Your task to perform on an android device: change the clock display to analog Image 0: 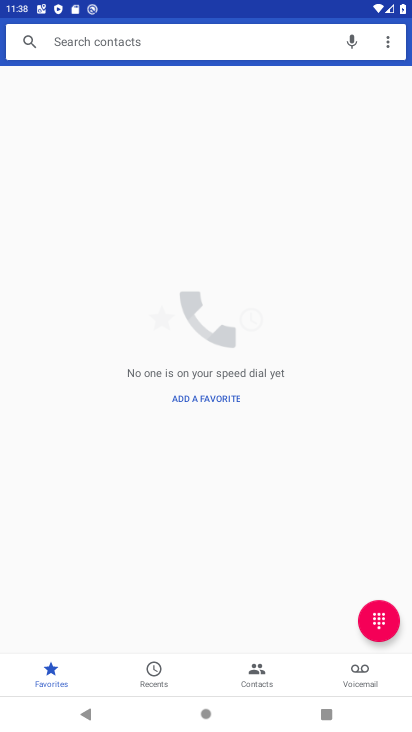
Step 0: press home button
Your task to perform on an android device: change the clock display to analog Image 1: 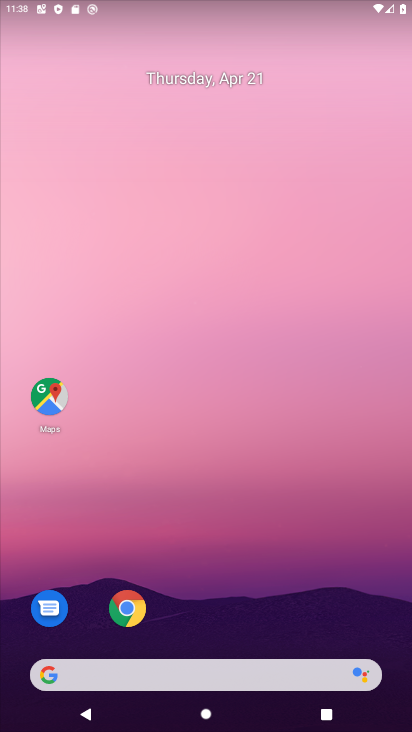
Step 1: drag from (248, 649) to (168, 171)
Your task to perform on an android device: change the clock display to analog Image 2: 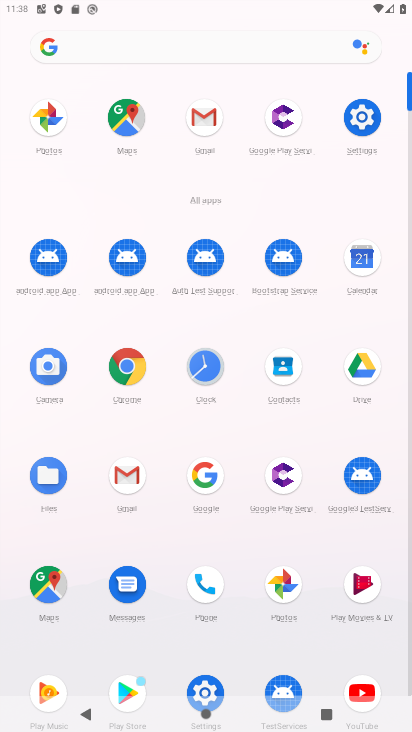
Step 2: click (193, 371)
Your task to perform on an android device: change the clock display to analog Image 3: 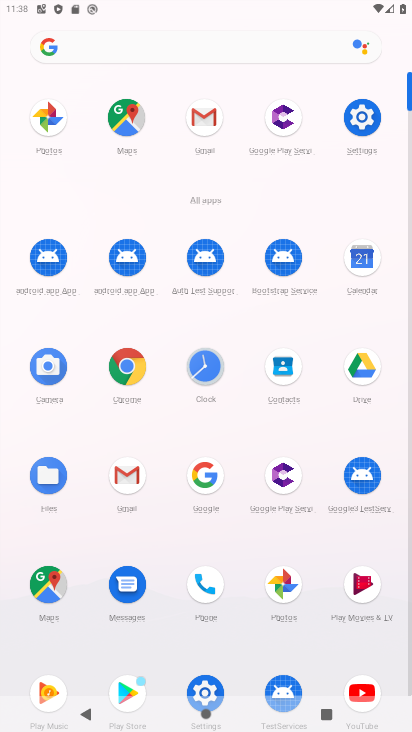
Step 3: click (193, 371)
Your task to perform on an android device: change the clock display to analog Image 4: 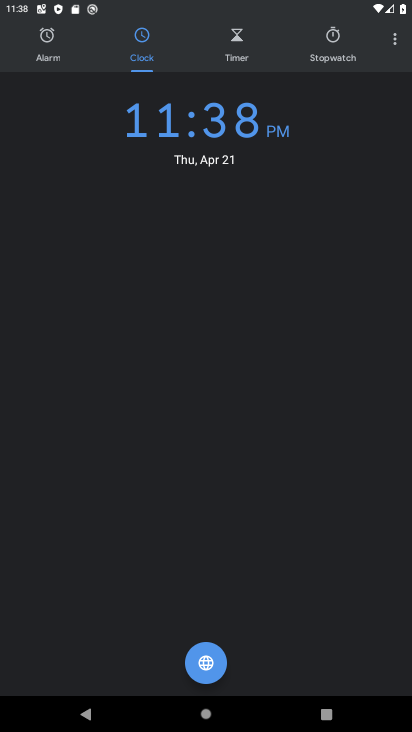
Step 4: click (396, 41)
Your task to perform on an android device: change the clock display to analog Image 5: 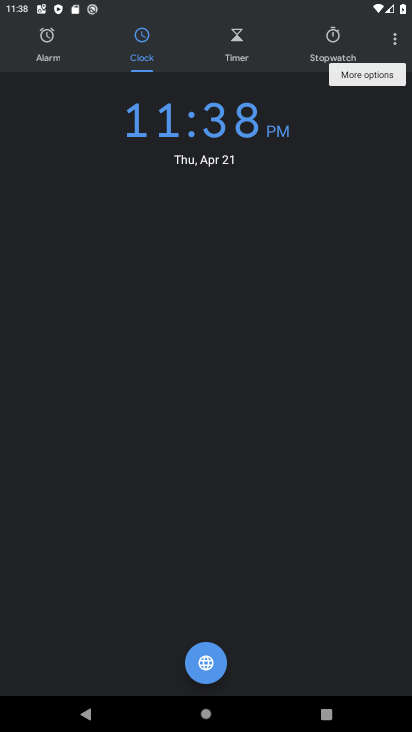
Step 5: click (398, 38)
Your task to perform on an android device: change the clock display to analog Image 6: 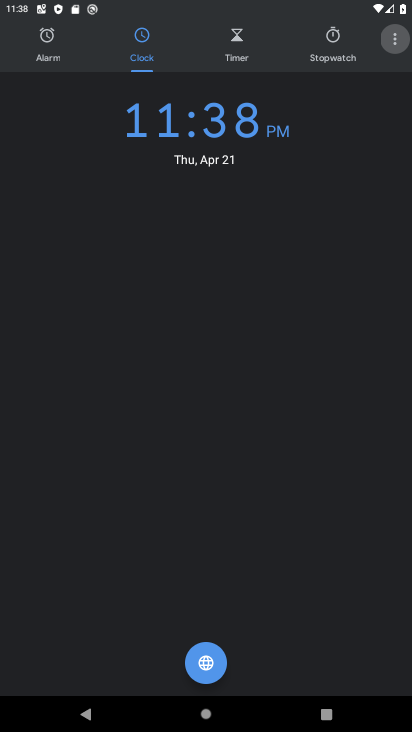
Step 6: click (398, 38)
Your task to perform on an android device: change the clock display to analog Image 7: 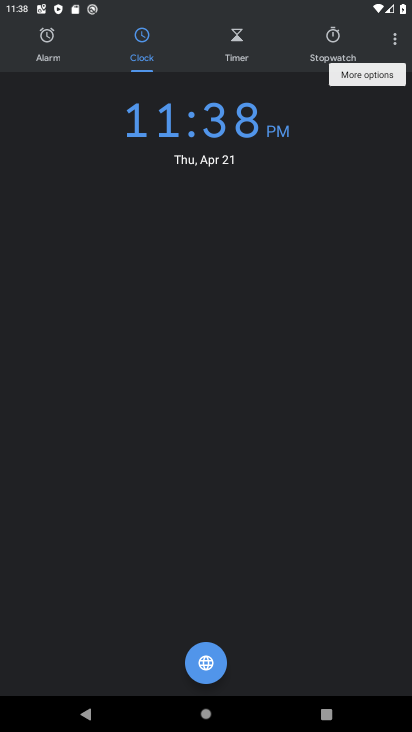
Step 7: click (396, 47)
Your task to perform on an android device: change the clock display to analog Image 8: 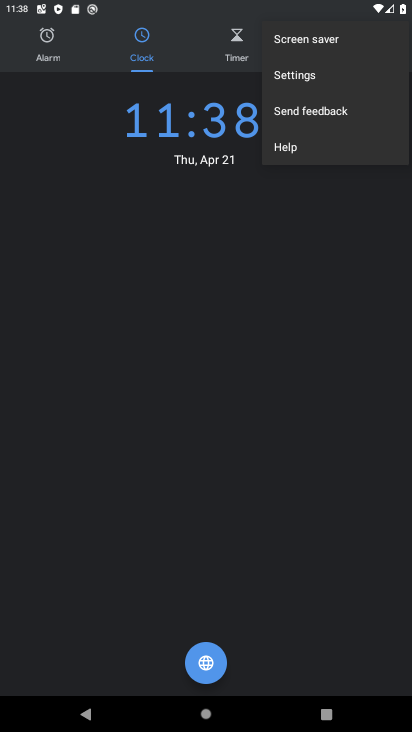
Step 8: click (387, 34)
Your task to perform on an android device: change the clock display to analog Image 9: 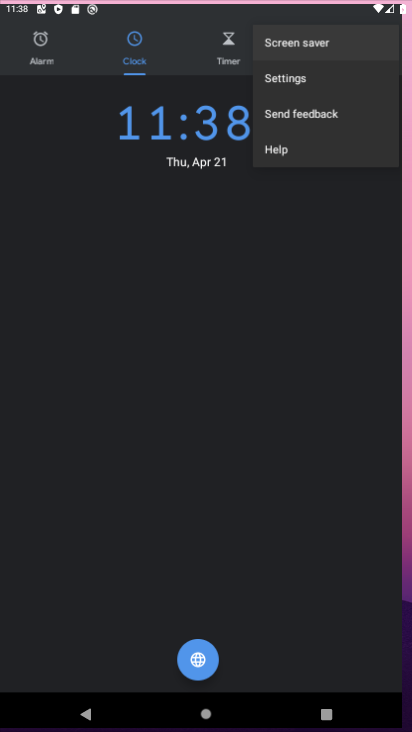
Step 9: click (304, 71)
Your task to perform on an android device: change the clock display to analog Image 10: 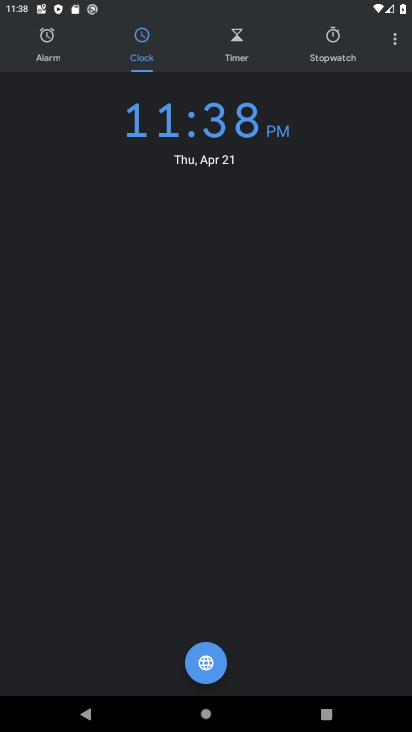
Step 10: click (393, 40)
Your task to perform on an android device: change the clock display to analog Image 11: 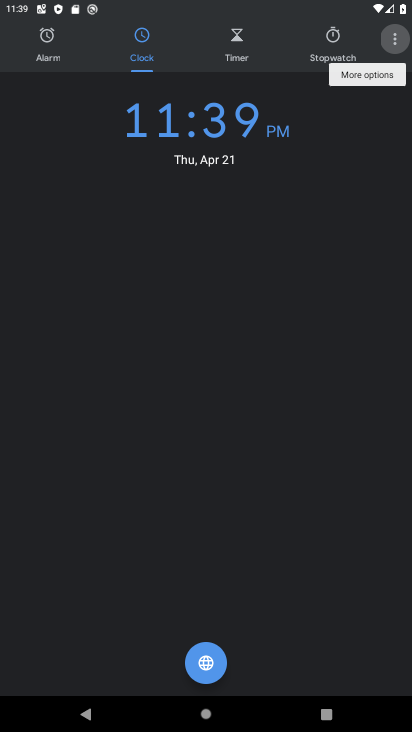
Step 11: click (392, 41)
Your task to perform on an android device: change the clock display to analog Image 12: 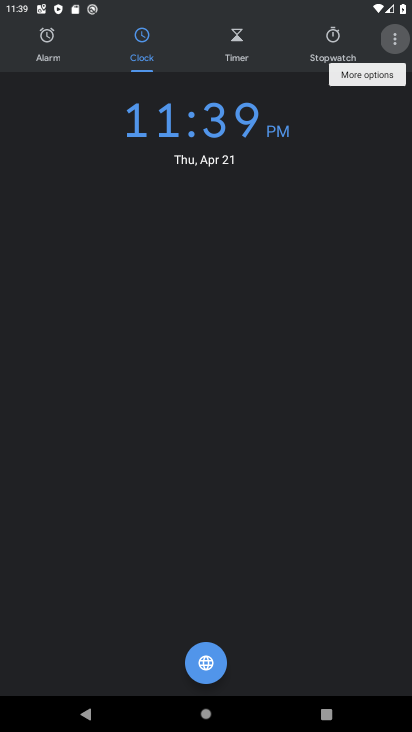
Step 12: click (392, 42)
Your task to perform on an android device: change the clock display to analog Image 13: 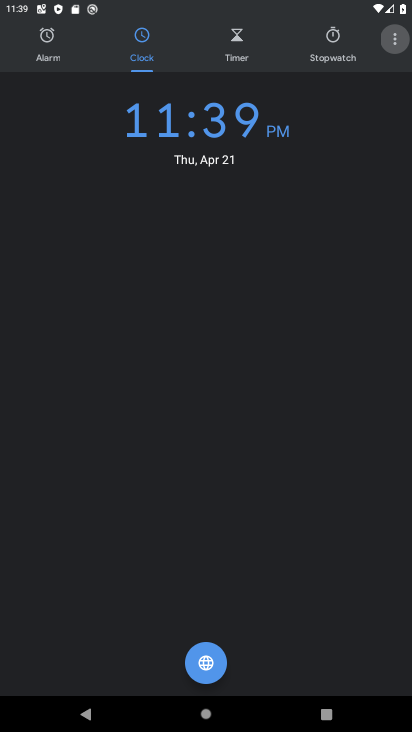
Step 13: click (392, 42)
Your task to perform on an android device: change the clock display to analog Image 14: 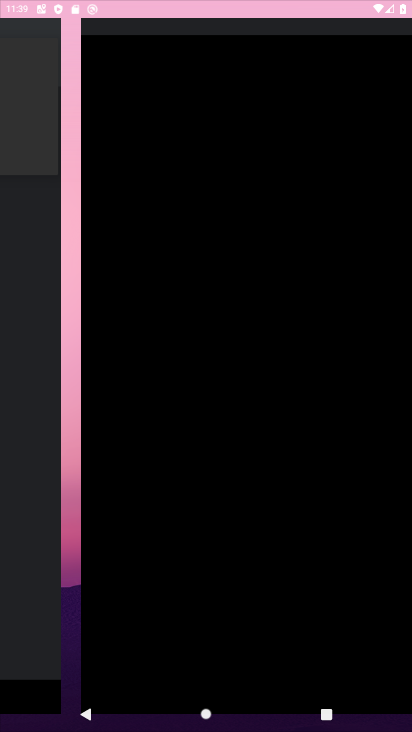
Step 14: click (290, 80)
Your task to perform on an android device: change the clock display to analog Image 15: 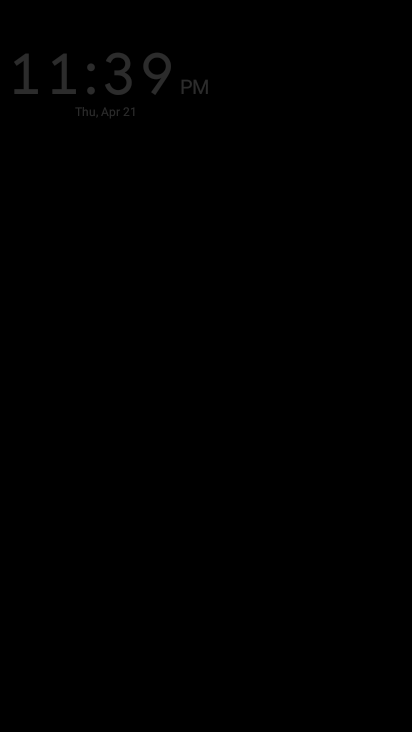
Step 15: click (290, 77)
Your task to perform on an android device: change the clock display to analog Image 16: 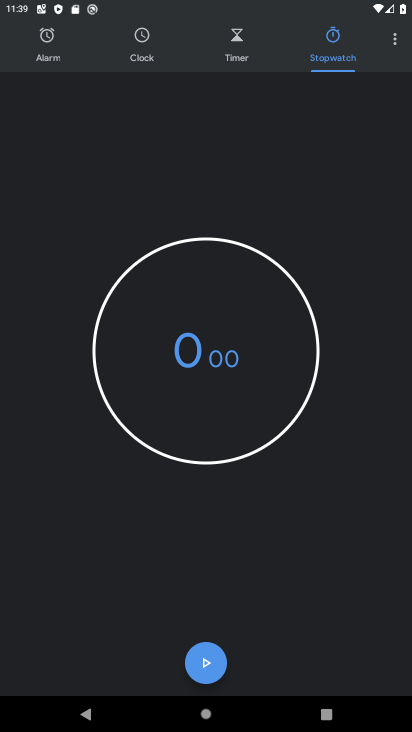
Step 16: click (392, 40)
Your task to perform on an android device: change the clock display to analog Image 17: 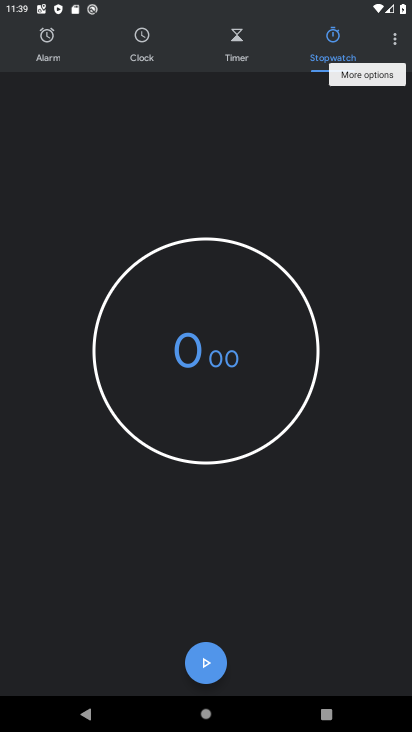
Step 17: click (391, 46)
Your task to perform on an android device: change the clock display to analog Image 18: 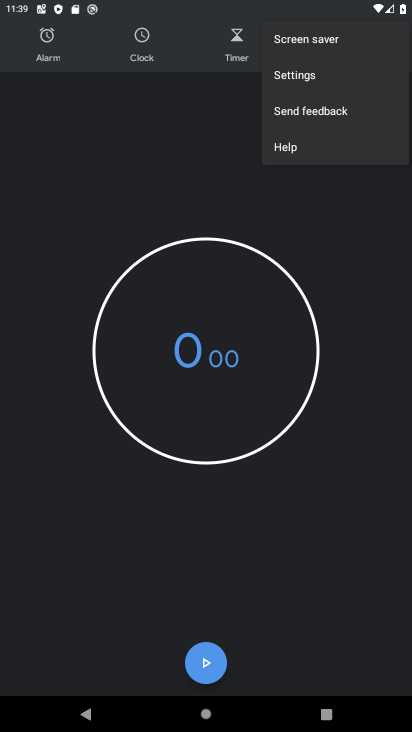
Step 18: click (391, 46)
Your task to perform on an android device: change the clock display to analog Image 19: 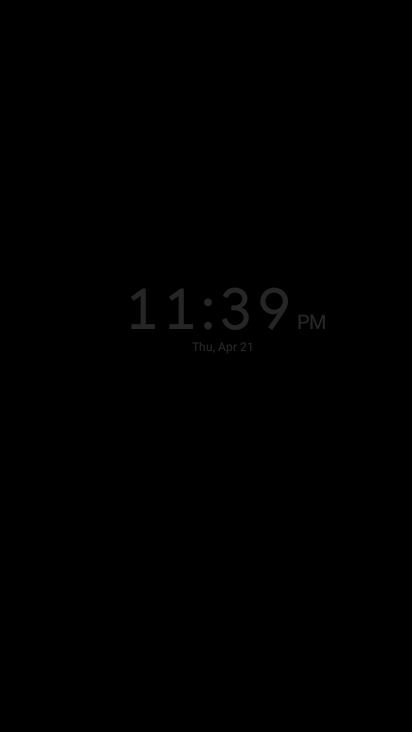
Step 19: click (310, 72)
Your task to perform on an android device: change the clock display to analog Image 20: 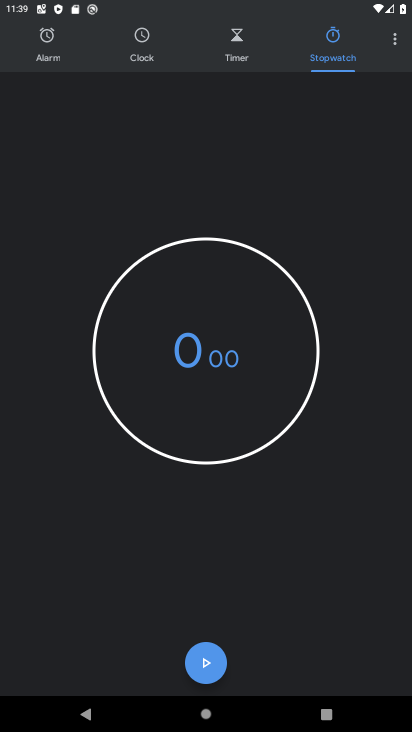
Step 20: click (391, 43)
Your task to perform on an android device: change the clock display to analog Image 21: 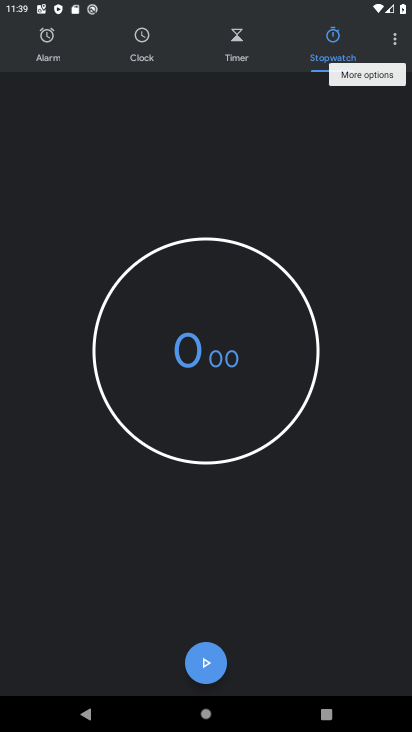
Step 21: click (395, 40)
Your task to perform on an android device: change the clock display to analog Image 22: 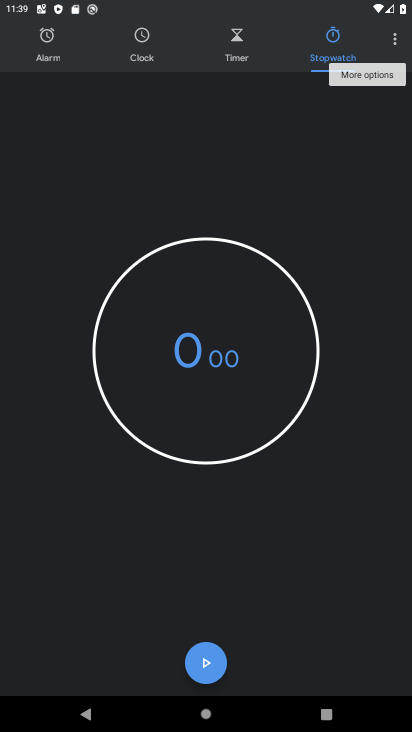
Step 22: click (391, 35)
Your task to perform on an android device: change the clock display to analog Image 23: 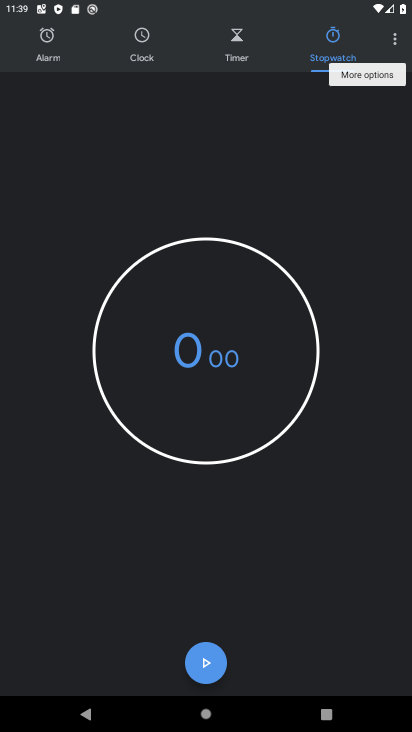
Step 23: click (389, 55)
Your task to perform on an android device: change the clock display to analog Image 24: 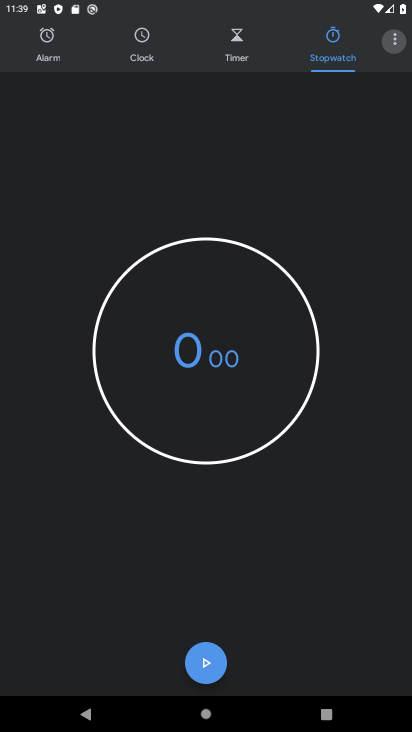
Step 24: click (397, 44)
Your task to perform on an android device: change the clock display to analog Image 25: 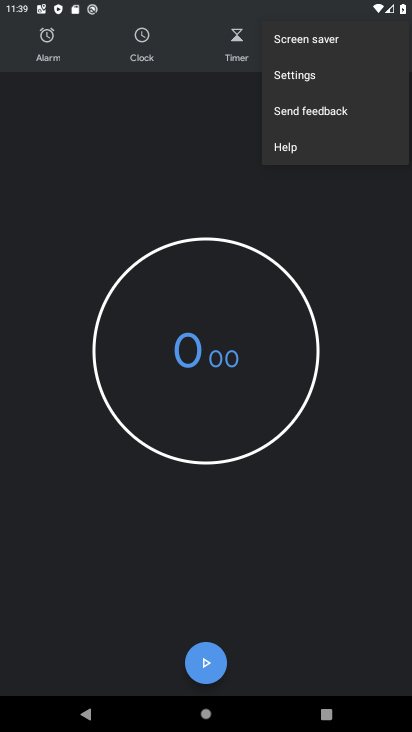
Step 25: click (319, 78)
Your task to perform on an android device: change the clock display to analog Image 26: 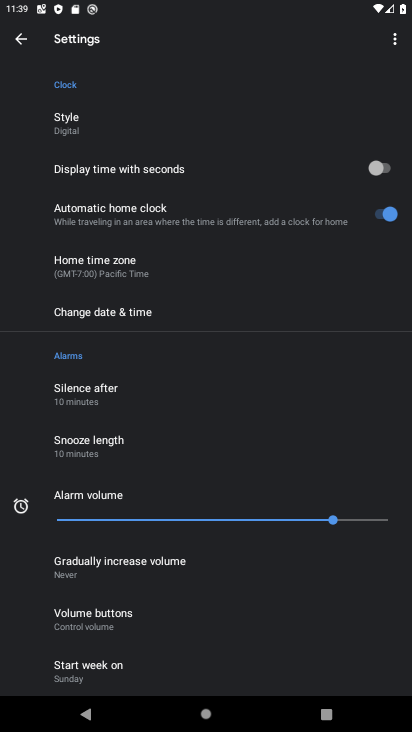
Step 26: click (142, 111)
Your task to perform on an android device: change the clock display to analog Image 27: 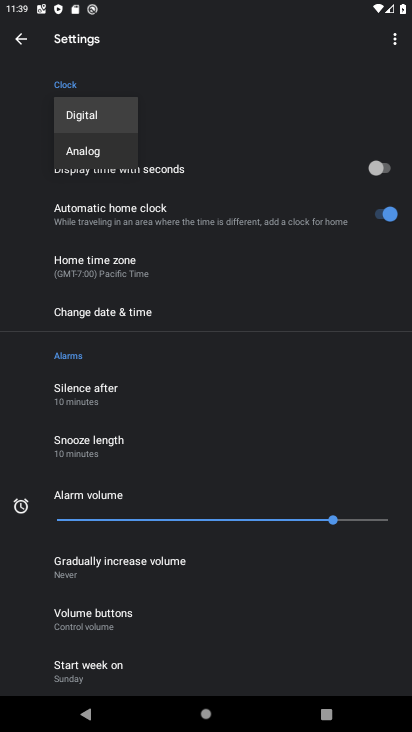
Step 27: click (94, 149)
Your task to perform on an android device: change the clock display to analog Image 28: 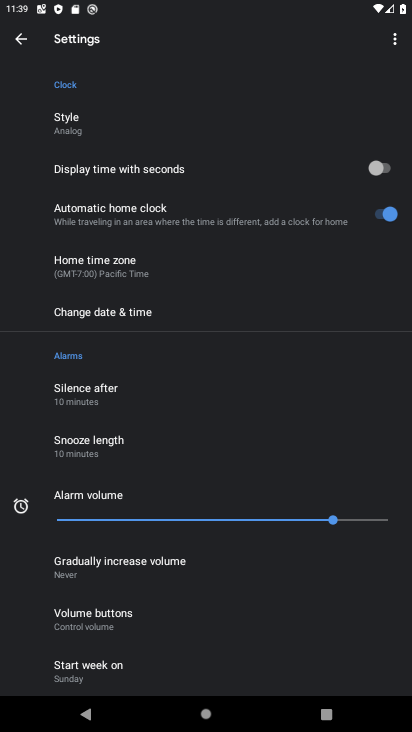
Step 28: task complete